Your task to perform on an android device: Go to Google Image 0: 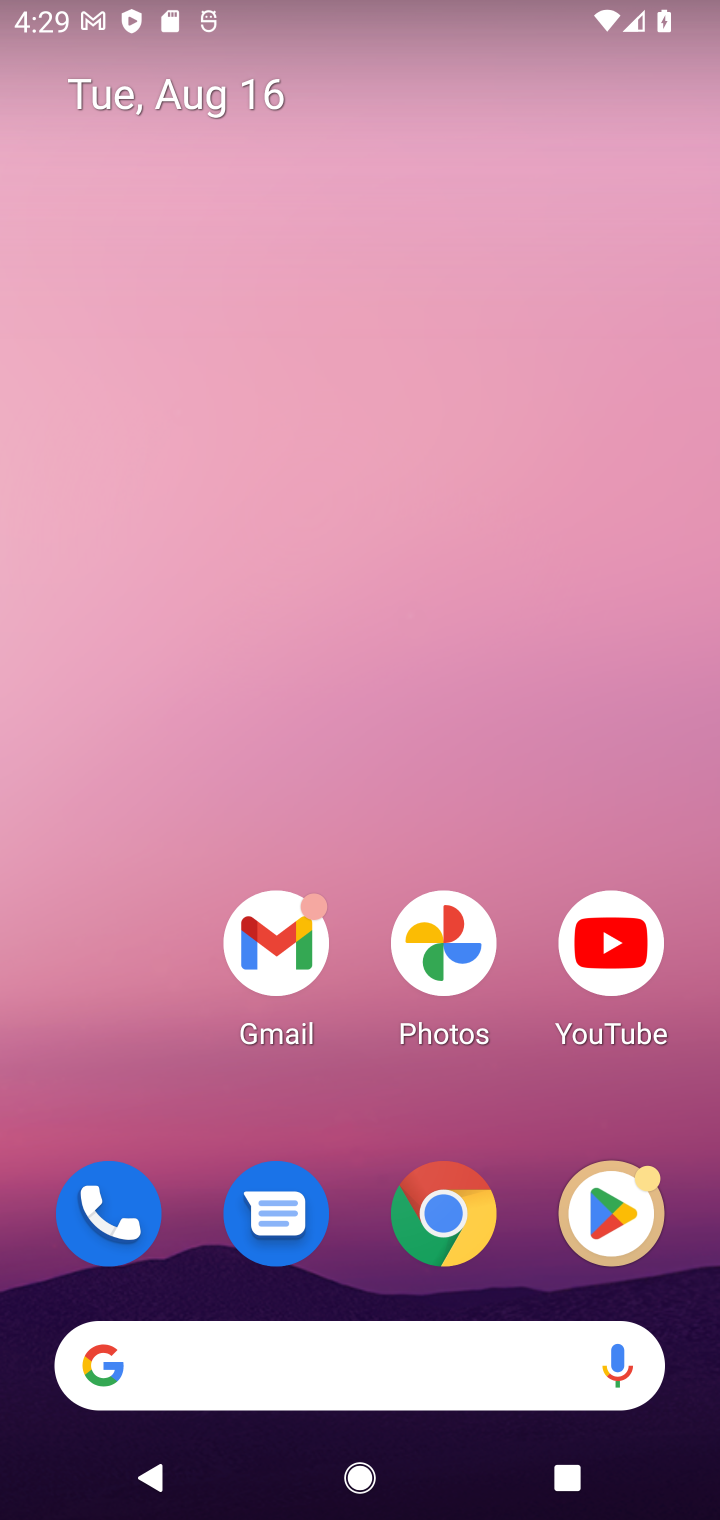
Step 0: drag from (524, 1022) to (311, 38)
Your task to perform on an android device: Go to Google Image 1: 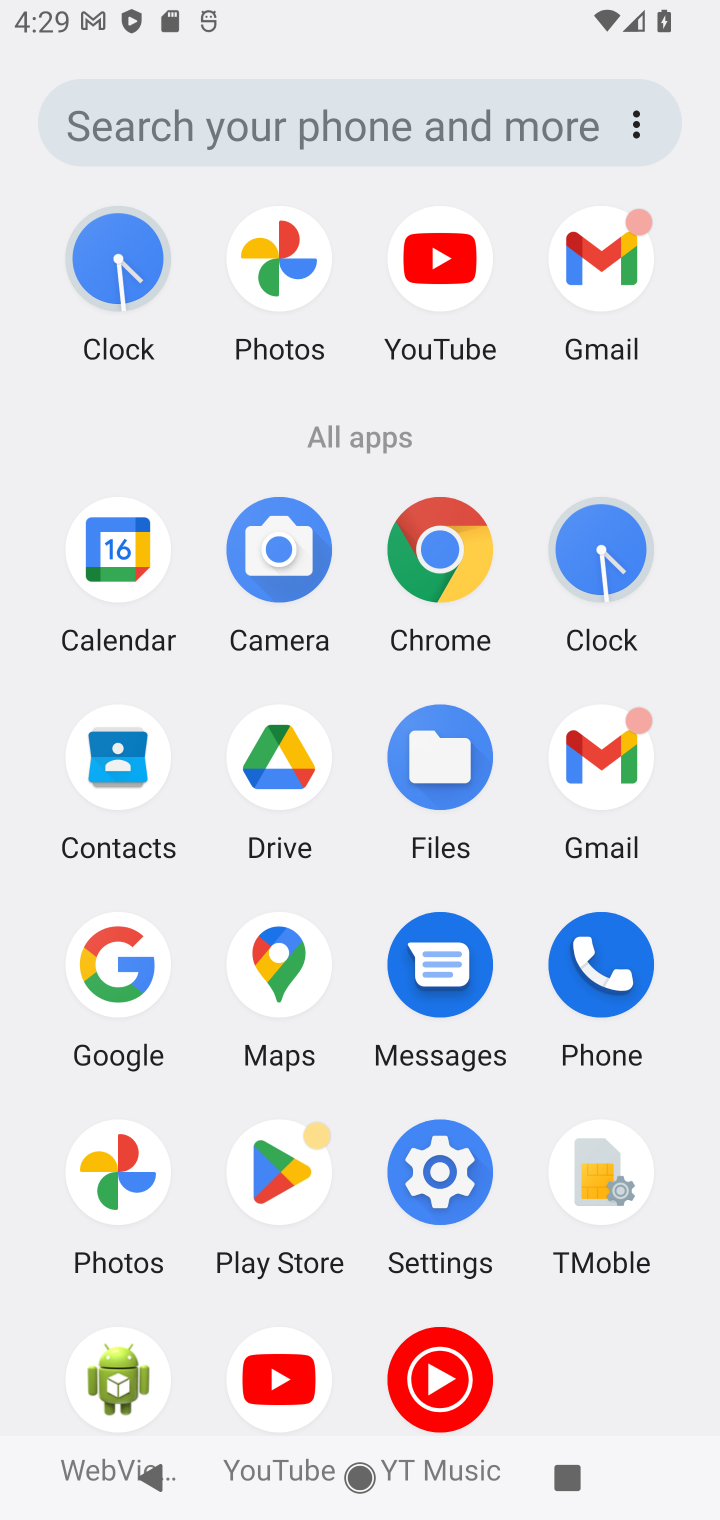
Step 1: click (122, 983)
Your task to perform on an android device: Go to Google Image 2: 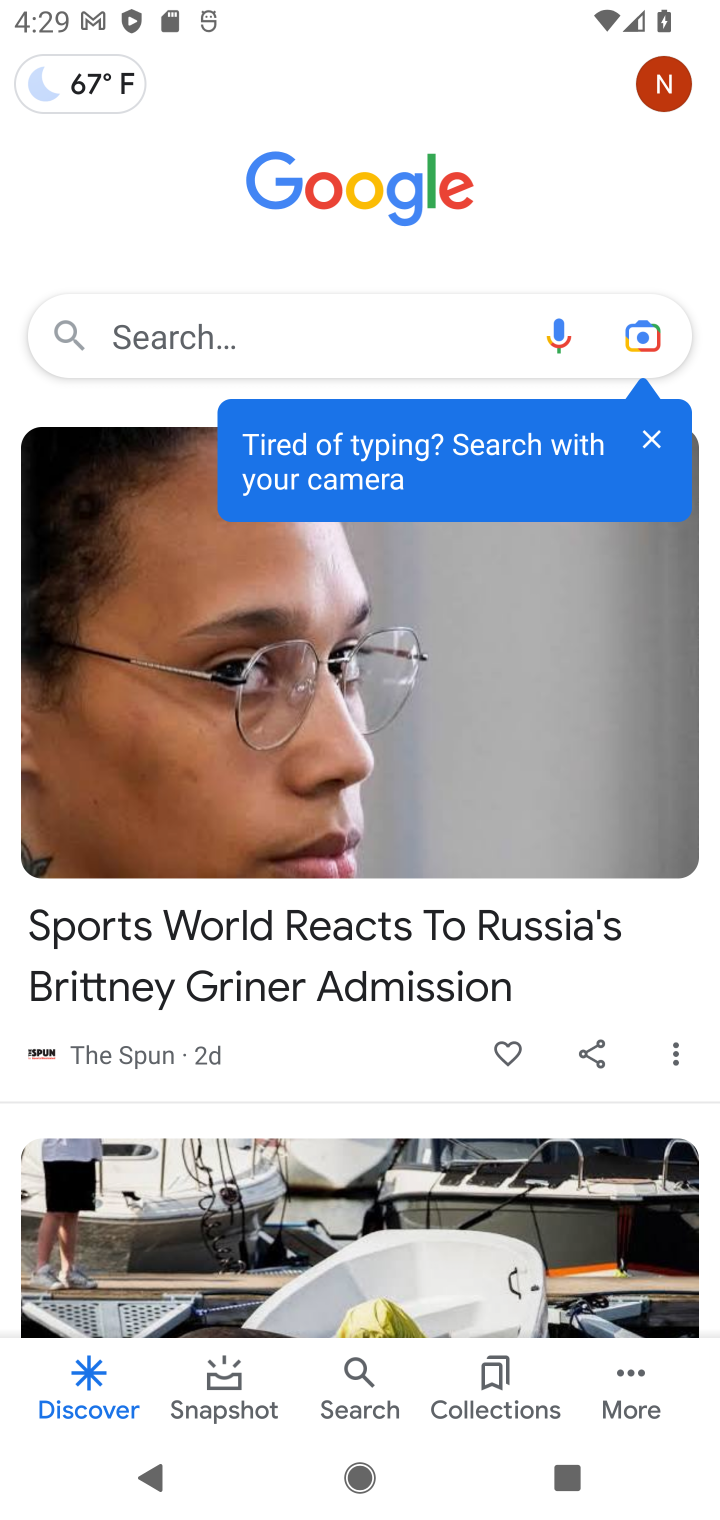
Step 2: task complete